Your task to perform on an android device: Go to accessibility settings Image 0: 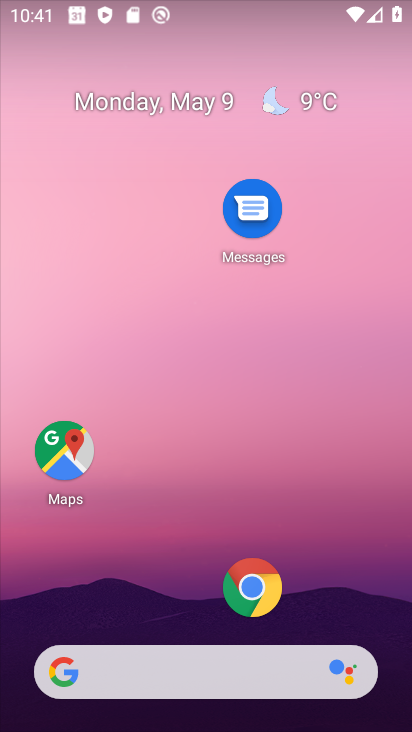
Step 0: drag from (191, 577) to (197, 95)
Your task to perform on an android device: Go to accessibility settings Image 1: 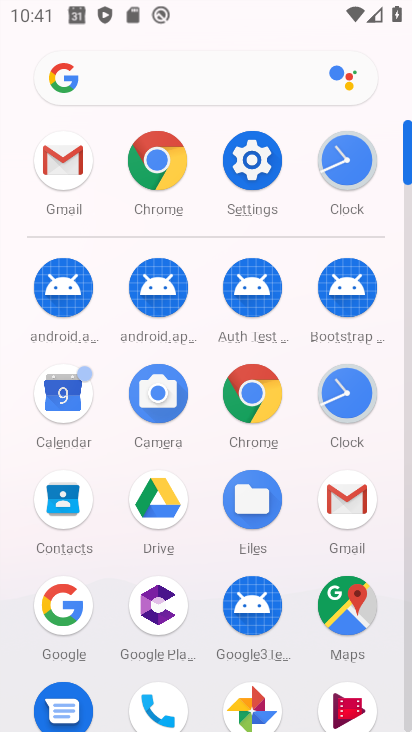
Step 1: click (253, 147)
Your task to perform on an android device: Go to accessibility settings Image 2: 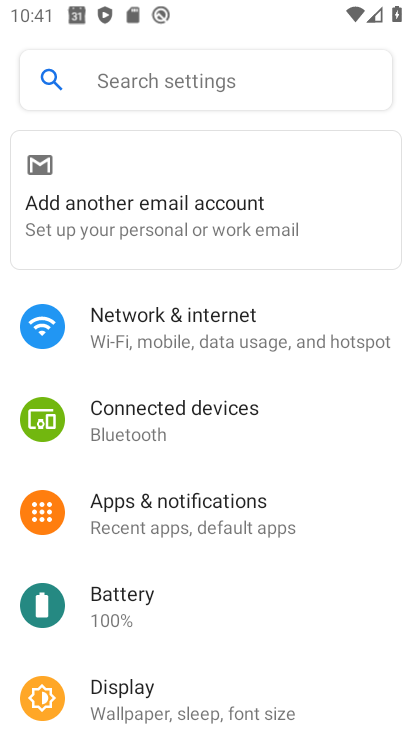
Step 2: drag from (198, 509) to (290, 6)
Your task to perform on an android device: Go to accessibility settings Image 3: 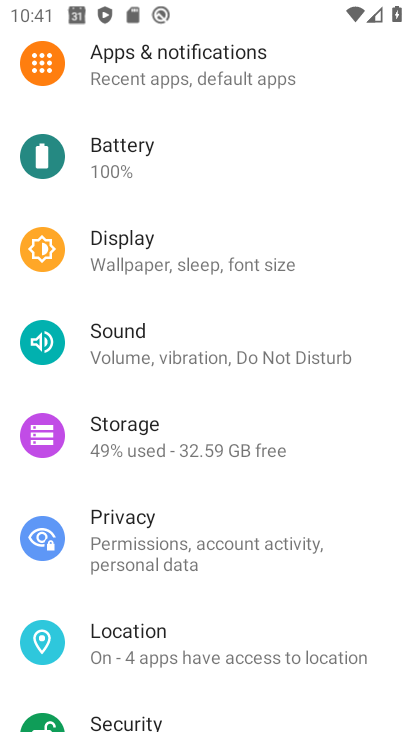
Step 3: drag from (229, 479) to (264, 105)
Your task to perform on an android device: Go to accessibility settings Image 4: 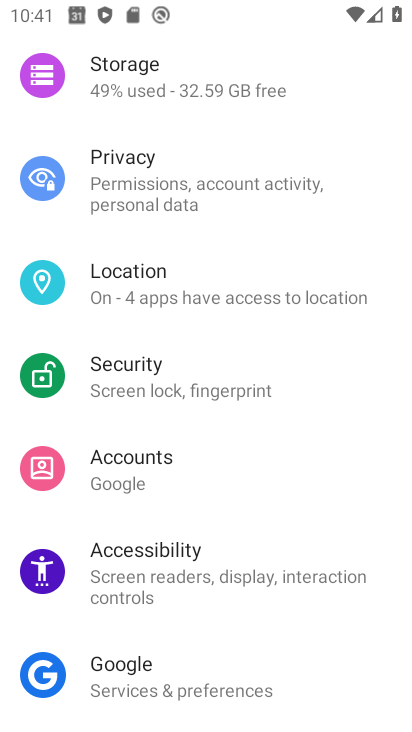
Step 4: click (194, 567)
Your task to perform on an android device: Go to accessibility settings Image 5: 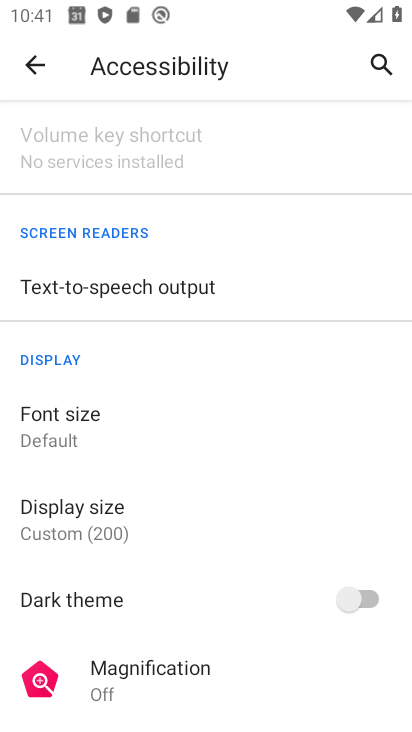
Step 5: task complete